Your task to perform on an android device: Play the new Selena Gomez video on YouTube Image 0: 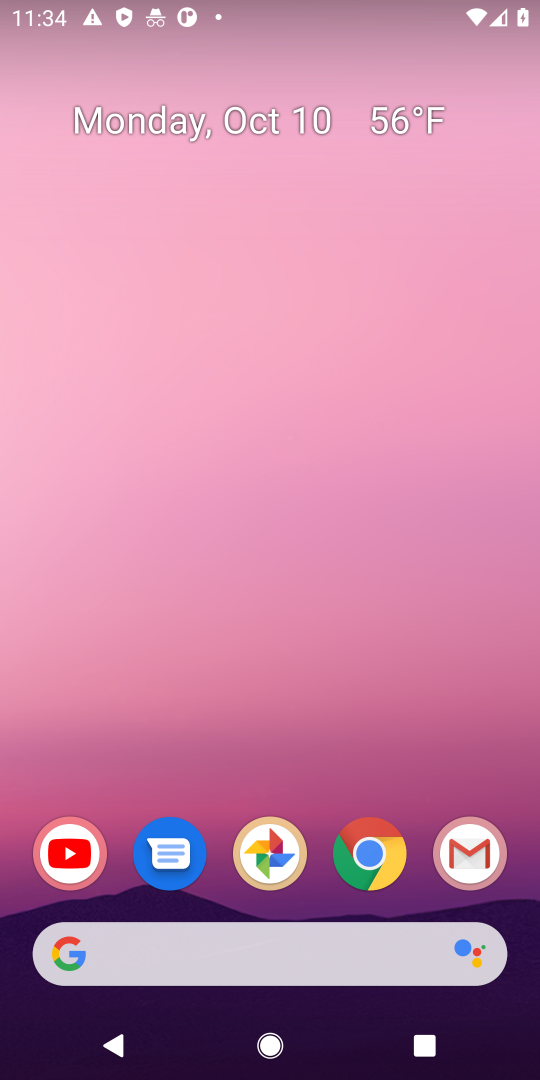
Step 0: drag from (311, 785) to (535, 1064)
Your task to perform on an android device: Play the new Selena Gomez video on YouTube Image 1: 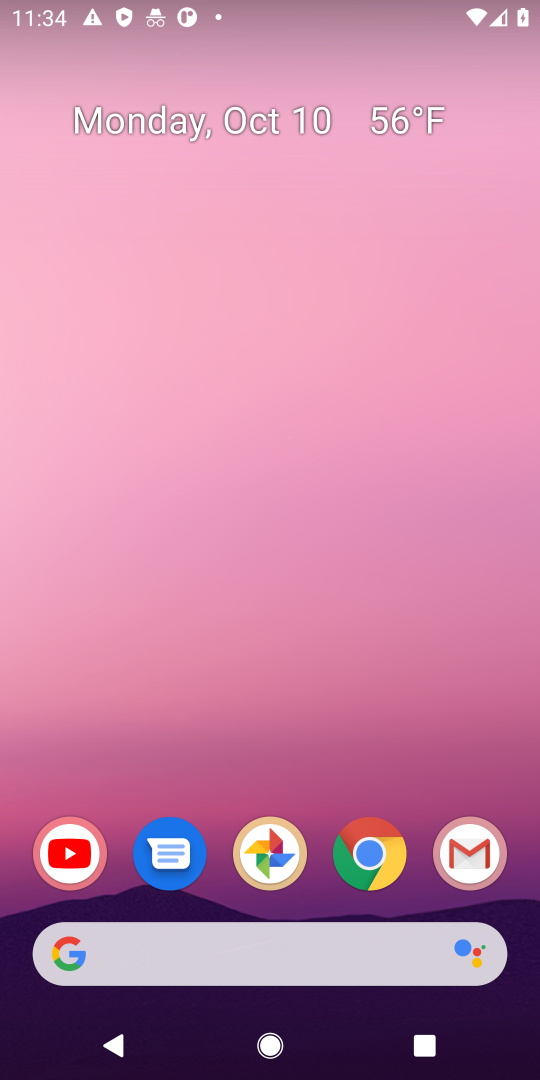
Step 1: click (75, 851)
Your task to perform on an android device: Play the new Selena Gomez video on YouTube Image 2: 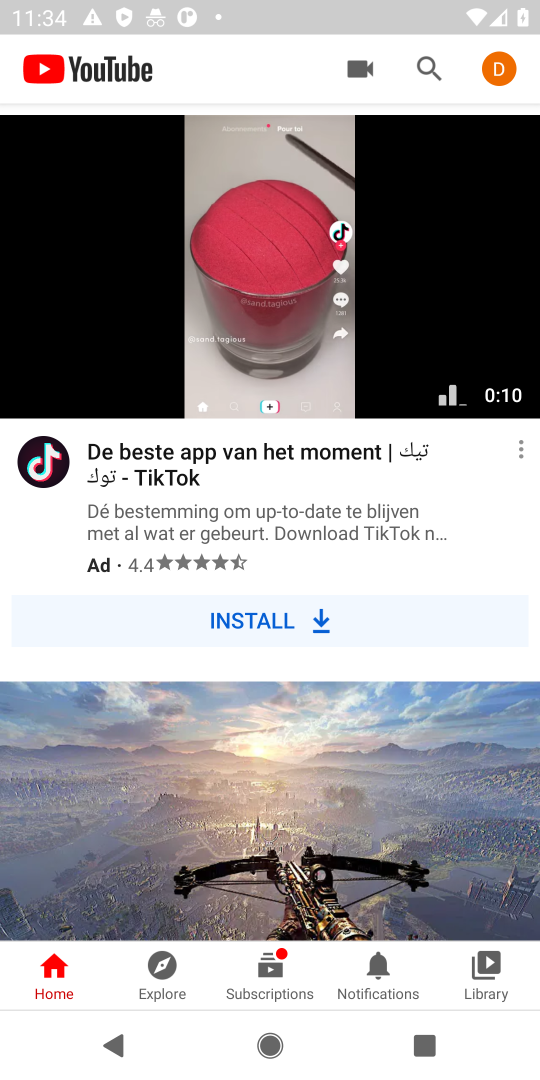
Step 2: click (427, 72)
Your task to perform on an android device: Play the new Selena Gomez video on YouTube Image 3: 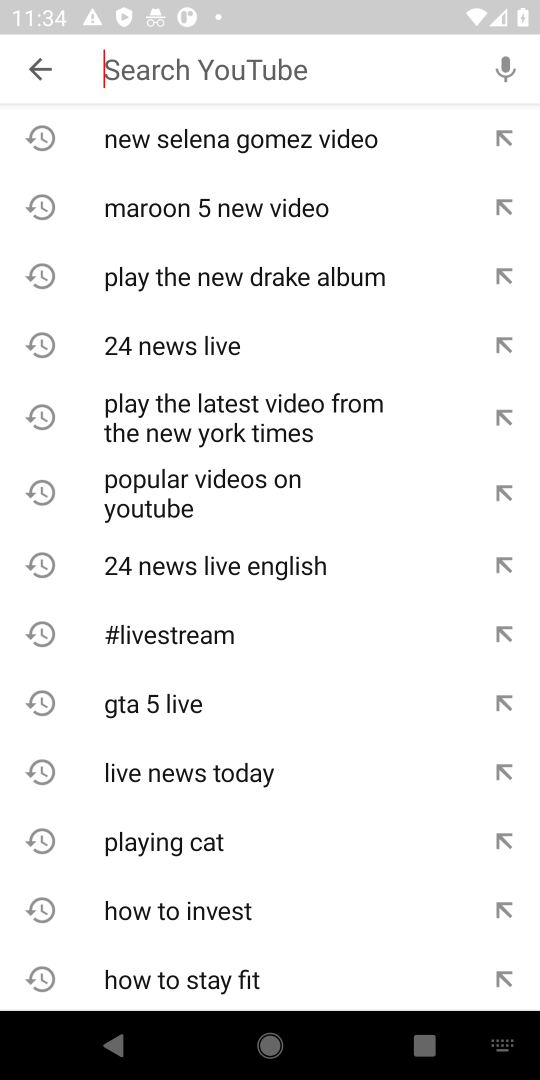
Step 3: type "Play the new Selena Gomez video "
Your task to perform on an android device: Play the new Selena Gomez video on YouTube Image 4: 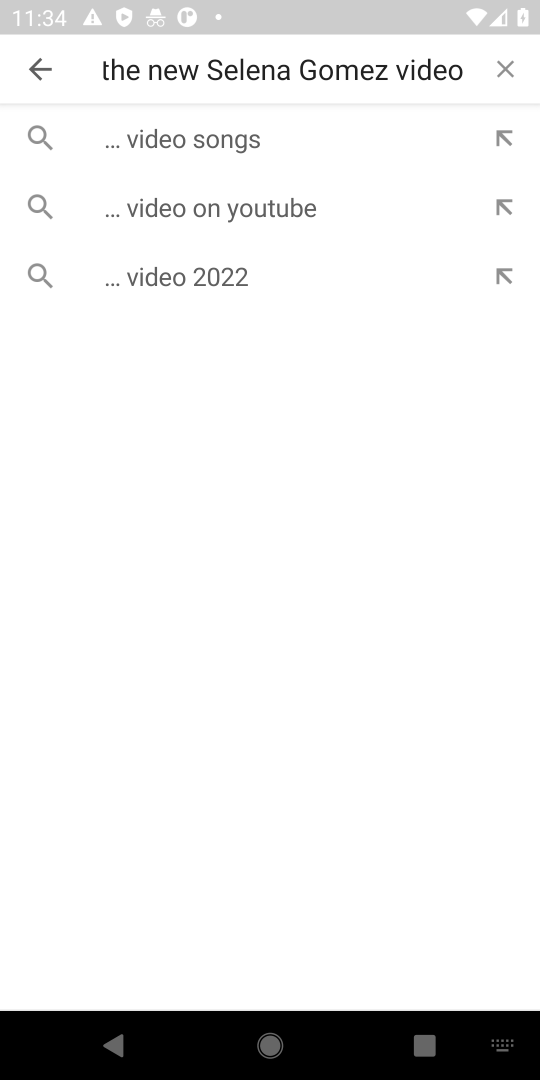
Step 4: click (230, 75)
Your task to perform on an android device: Play the new Selena Gomez video on YouTube Image 5: 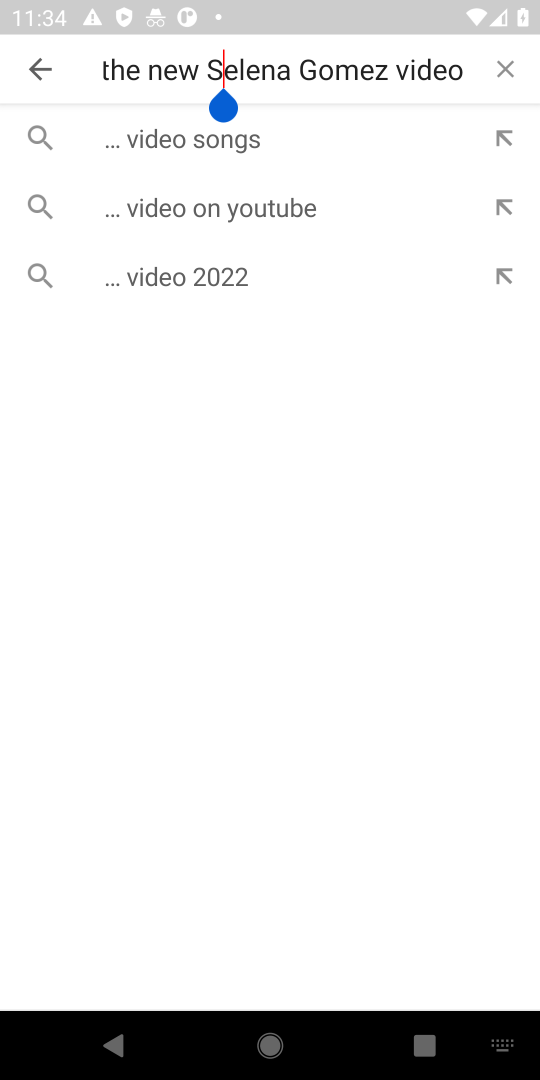
Step 5: click (192, 149)
Your task to perform on an android device: Play the new Selena Gomez video on YouTube Image 6: 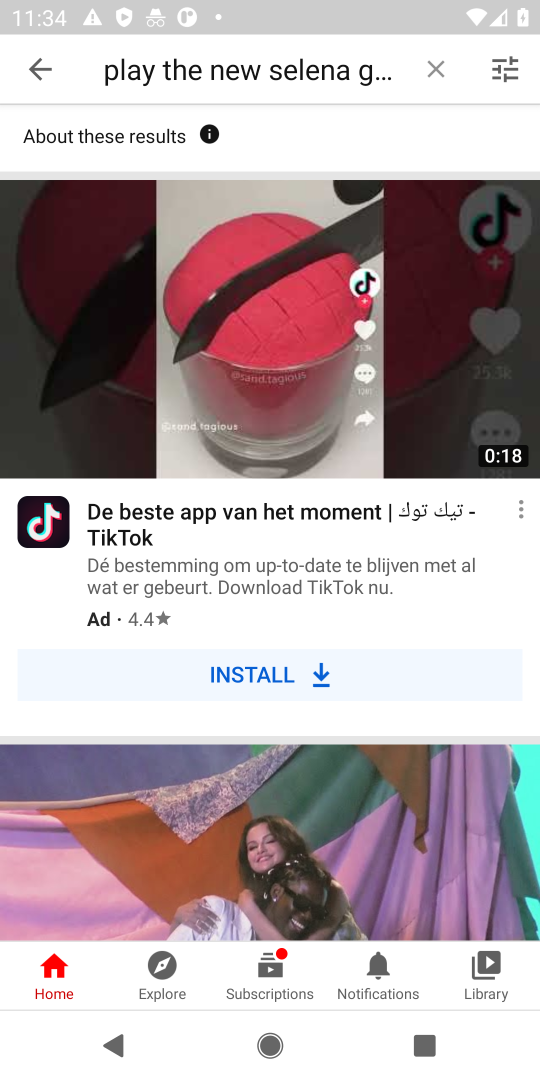
Step 6: drag from (241, 689) to (280, 408)
Your task to perform on an android device: Play the new Selena Gomez video on YouTube Image 7: 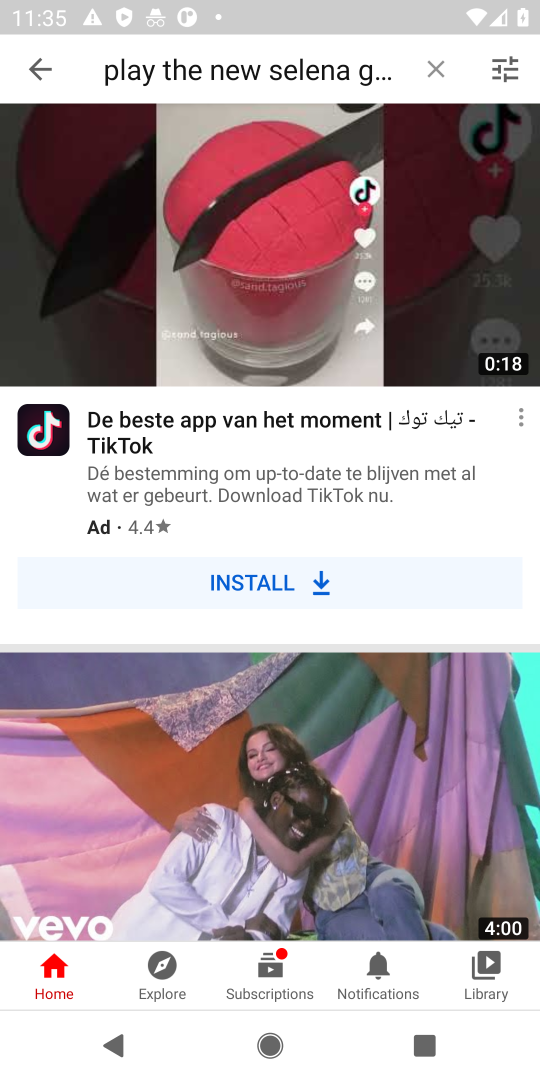
Step 7: drag from (201, 671) to (265, 221)
Your task to perform on an android device: Play the new Selena Gomez video on YouTube Image 8: 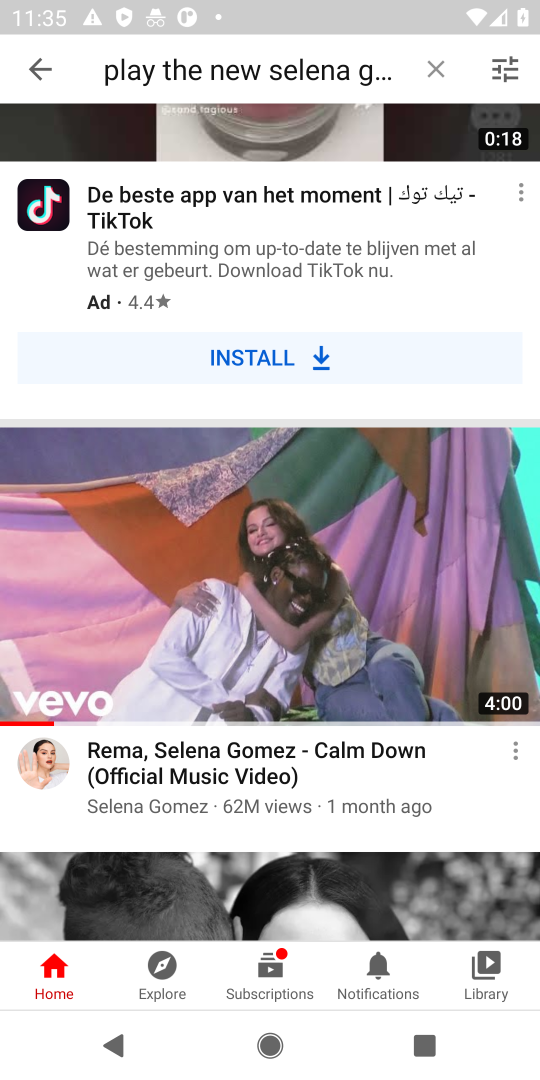
Step 8: click (280, 608)
Your task to perform on an android device: Play the new Selena Gomez video on YouTube Image 9: 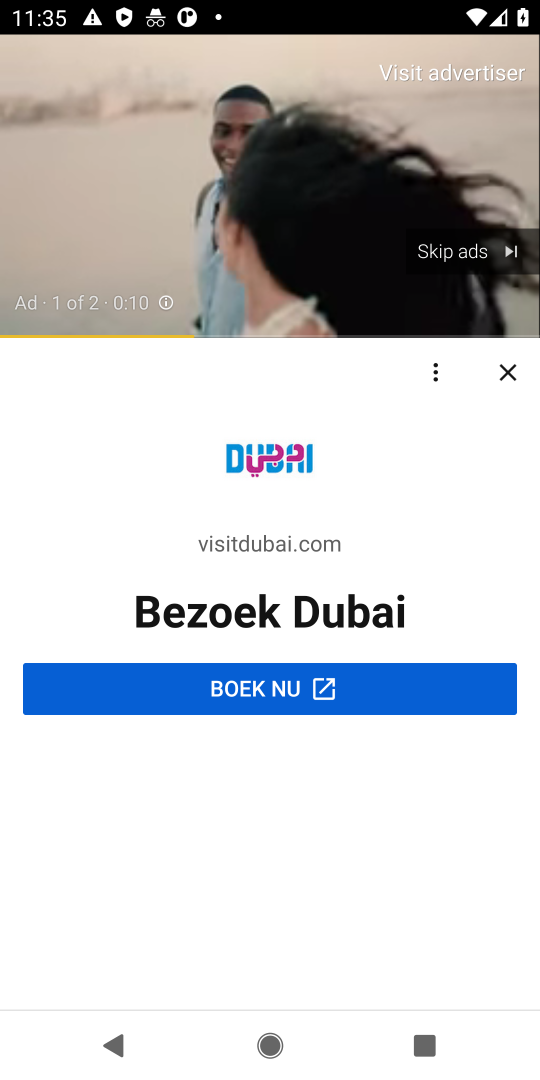
Step 9: click (502, 247)
Your task to perform on an android device: Play the new Selena Gomez video on YouTube Image 10: 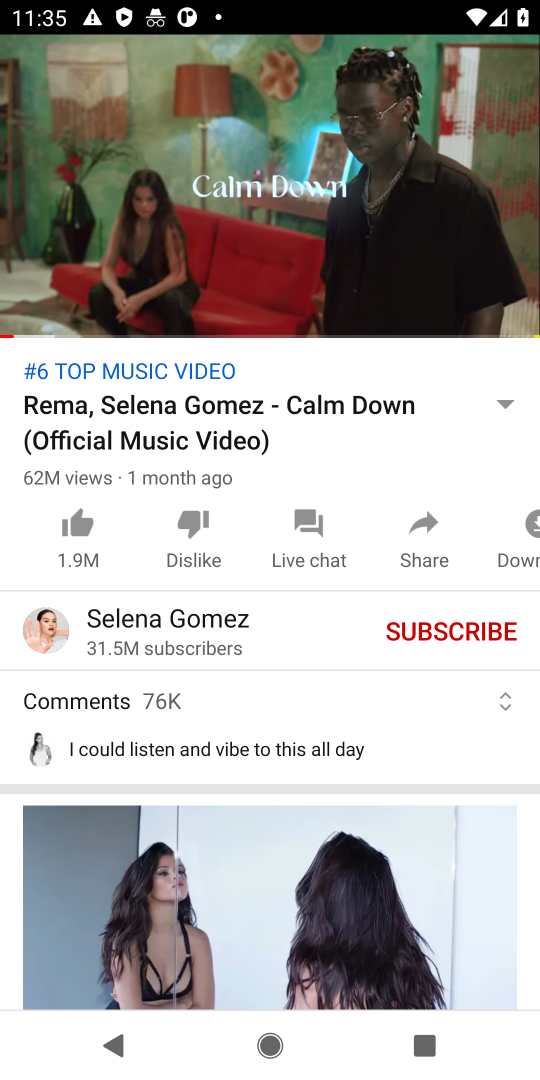
Step 10: task complete